Your task to perform on an android device: When is my next appointment? Image 0: 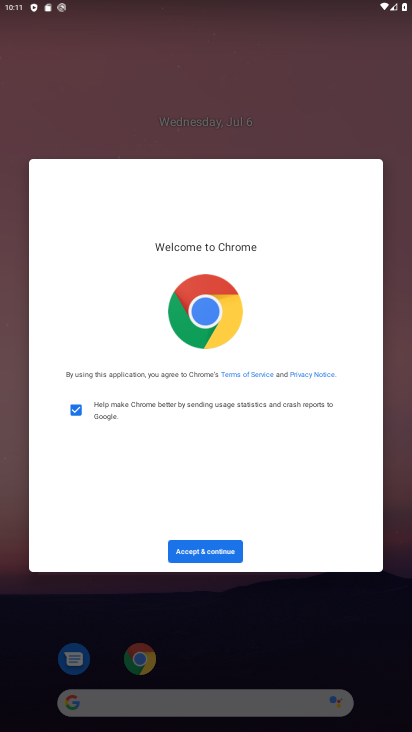
Step 0: press home button
Your task to perform on an android device: When is my next appointment? Image 1: 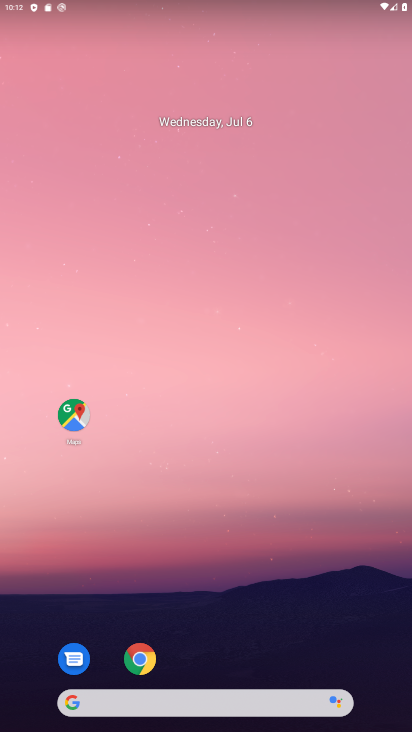
Step 1: drag from (229, 670) to (188, 67)
Your task to perform on an android device: When is my next appointment? Image 2: 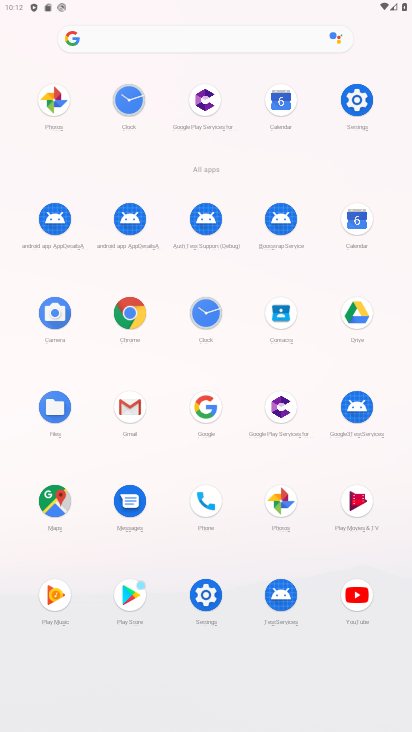
Step 2: click (358, 218)
Your task to perform on an android device: When is my next appointment? Image 3: 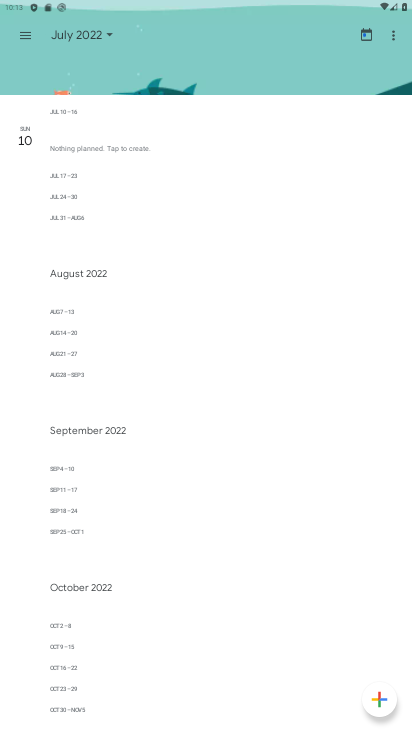
Step 3: click (24, 34)
Your task to perform on an android device: When is my next appointment? Image 4: 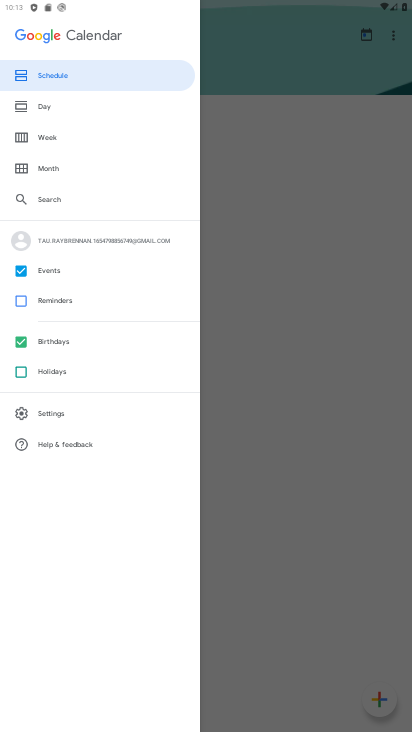
Step 4: click (57, 104)
Your task to perform on an android device: When is my next appointment? Image 5: 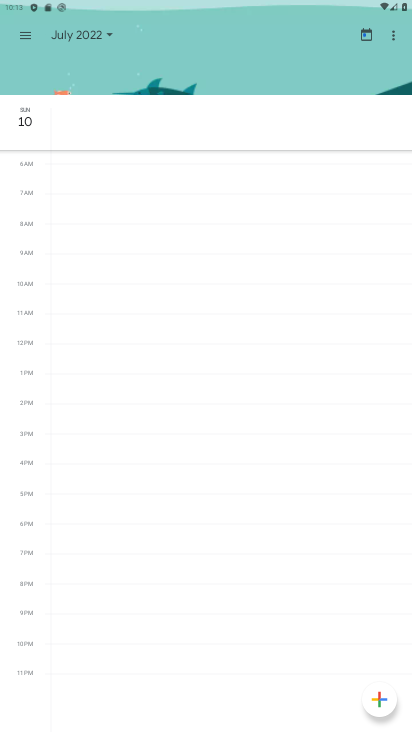
Step 5: task complete